Your task to perform on an android device: Open notification settings Image 0: 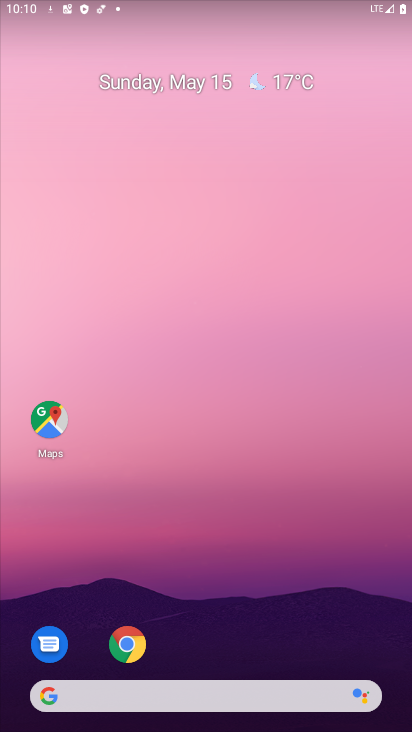
Step 0: drag from (311, 676) to (338, 223)
Your task to perform on an android device: Open notification settings Image 1: 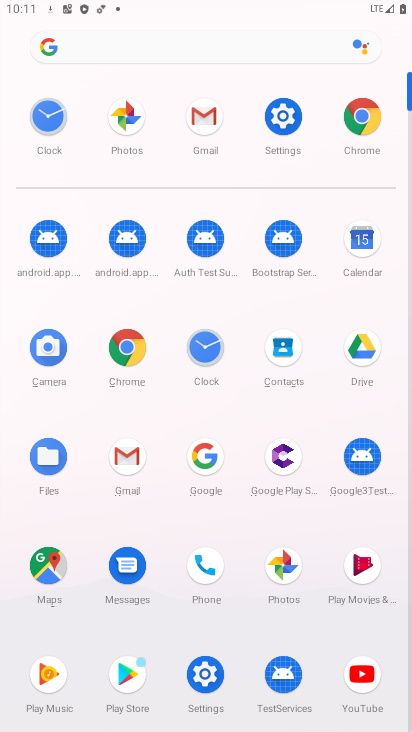
Step 1: click (281, 133)
Your task to perform on an android device: Open notification settings Image 2: 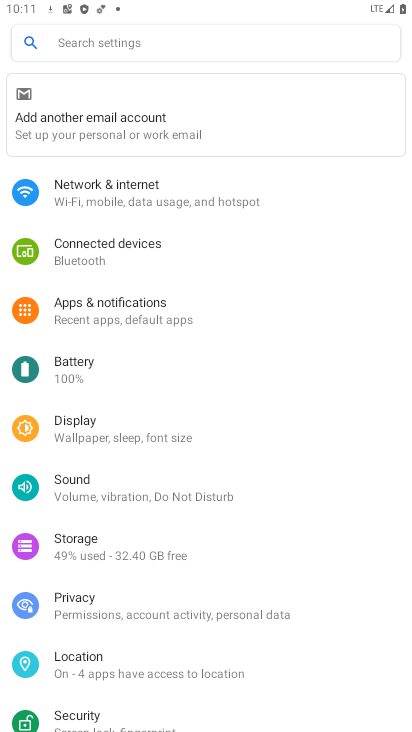
Step 2: click (160, 47)
Your task to perform on an android device: Open notification settings Image 3: 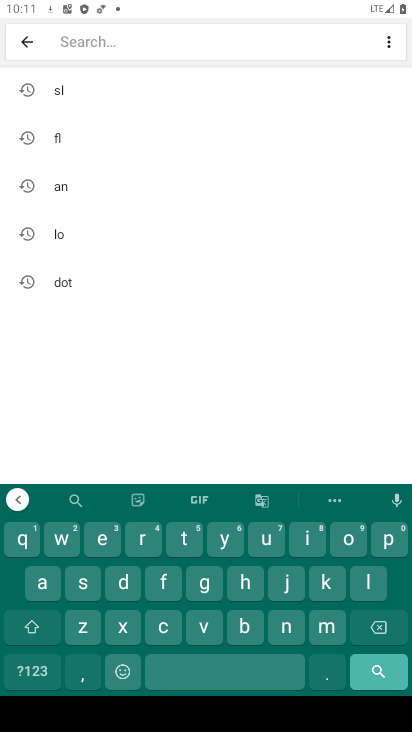
Step 3: click (282, 635)
Your task to perform on an android device: Open notification settings Image 4: 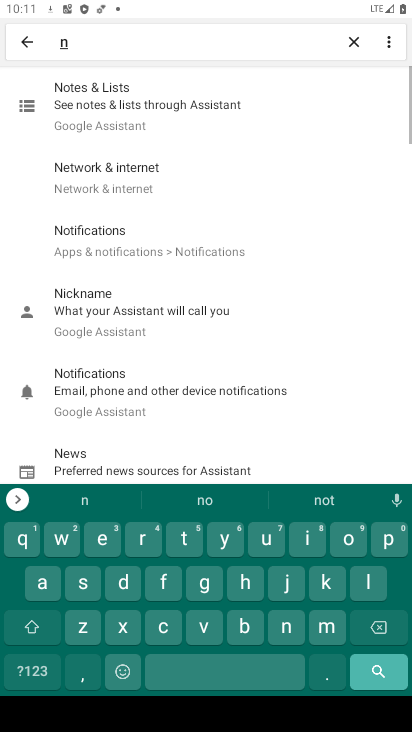
Step 4: click (351, 540)
Your task to perform on an android device: Open notification settings Image 5: 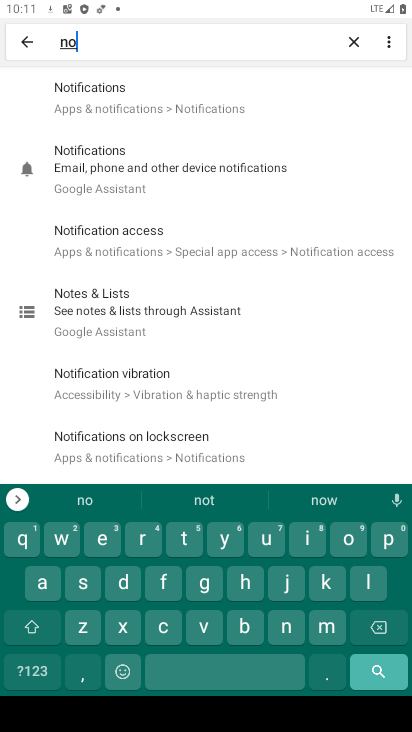
Step 5: click (131, 112)
Your task to perform on an android device: Open notification settings Image 6: 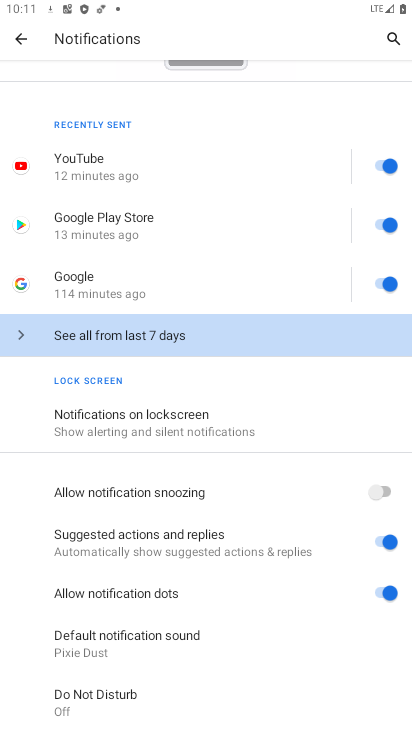
Step 6: click (124, 424)
Your task to perform on an android device: Open notification settings Image 7: 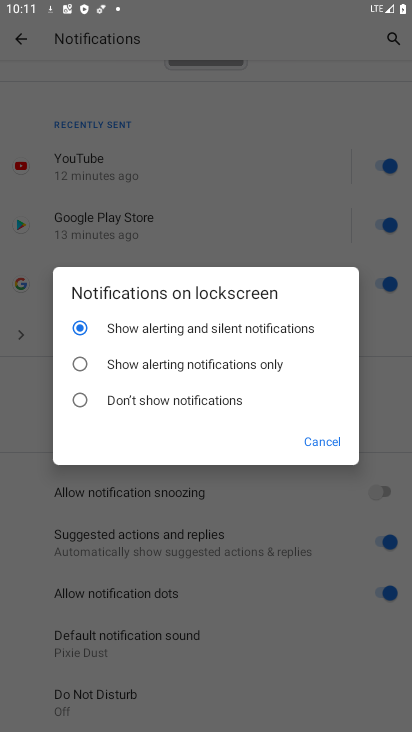
Step 7: task complete